Your task to perform on an android device: turn vacation reply on in the gmail app Image 0: 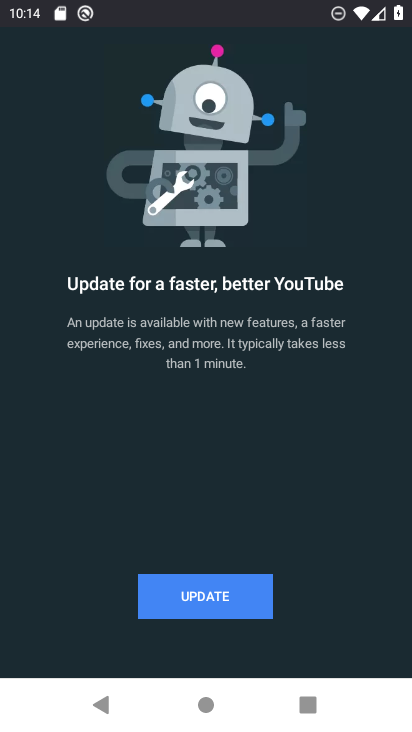
Step 0: press home button
Your task to perform on an android device: turn vacation reply on in the gmail app Image 1: 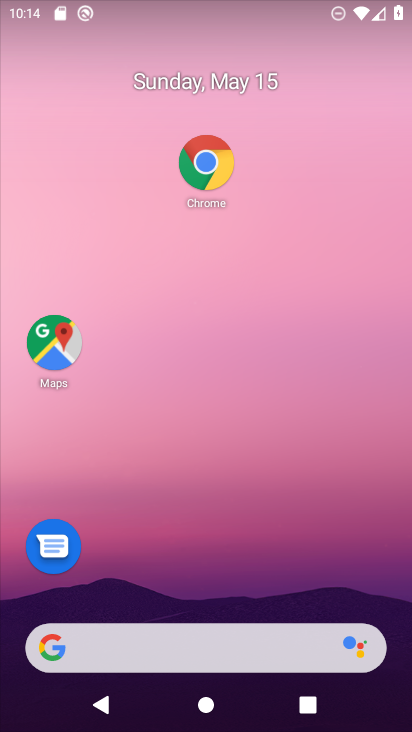
Step 1: drag from (200, 402) to (275, 127)
Your task to perform on an android device: turn vacation reply on in the gmail app Image 2: 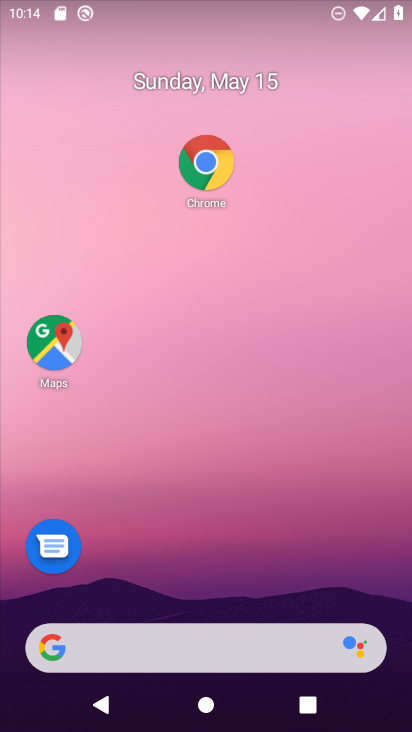
Step 2: drag from (208, 543) to (285, 192)
Your task to perform on an android device: turn vacation reply on in the gmail app Image 3: 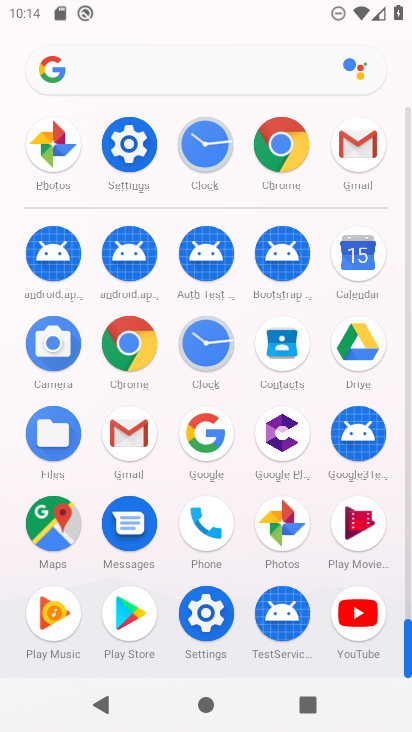
Step 3: click (135, 441)
Your task to perform on an android device: turn vacation reply on in the gmail app Image 4: 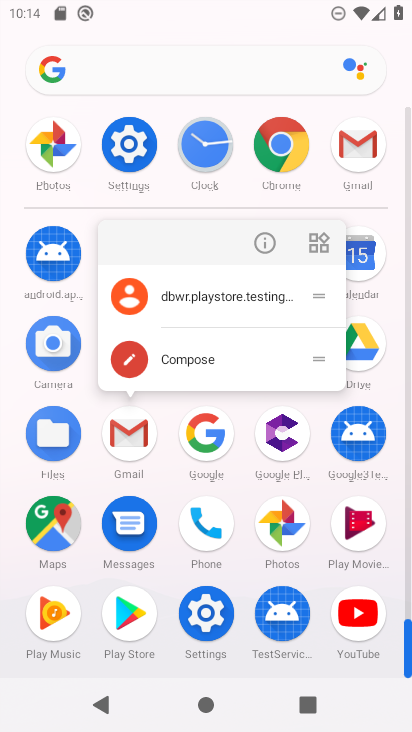
Step 4: click (125, 435)
Your task to perform on an android device: turn vacation reply on in the gmail app Image 5: 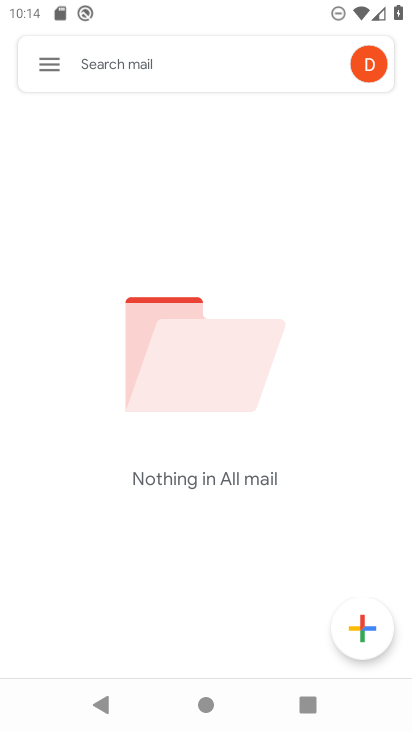
Step 5: click (52, 57)
Your task to perform on an android device: turn vacation reply on in the gmail app Image 6: 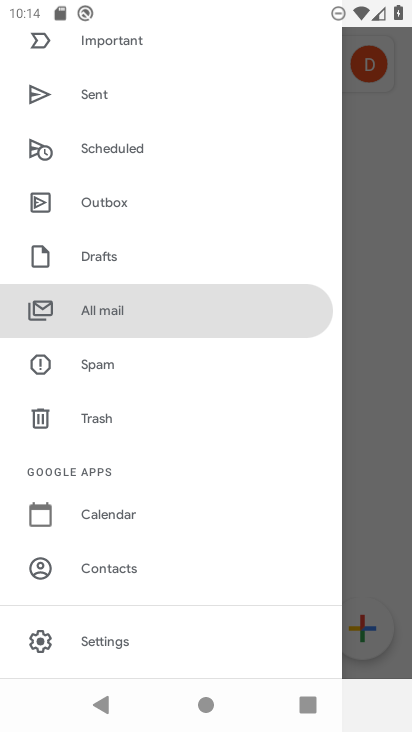
Step 6: click (142, 629)
Your task to perform on an android device: turn vacation reply on in the gmail app Image 7: 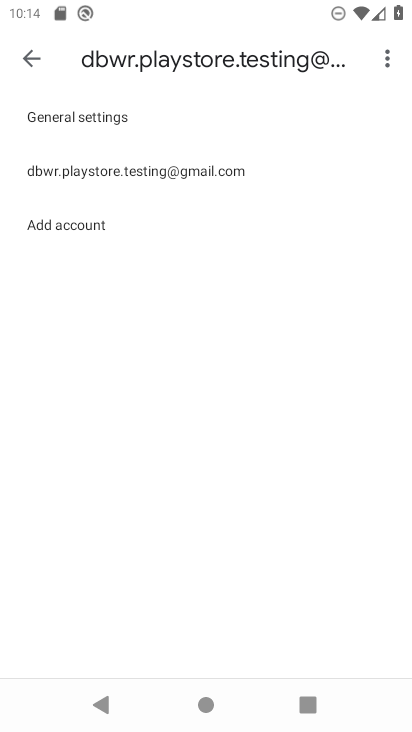
Step 7: click (91, 175)
Your task to perform on an android device: turn vacation reply on in the gmail app Image 8: 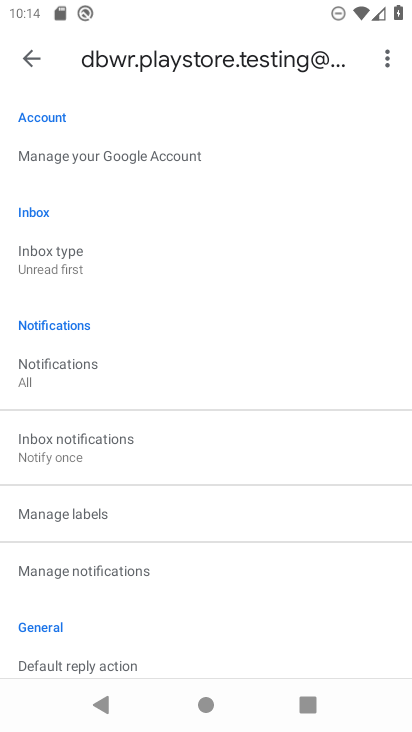
Step 8: drag from (124, 597) to (305, 82)
Your task to perform on an android device: turn vacation reply on in the gmail app Image 9: 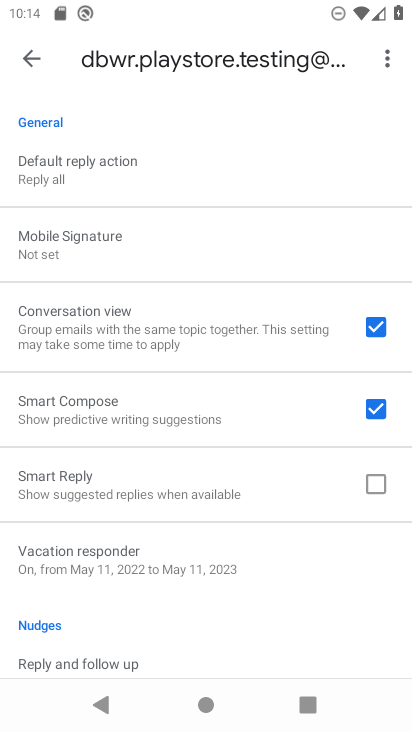
Step 9: drag from (90, 568) to (115, 527)
Your task to perform on an android device: turn vacation reply on in the gmail app Image 10: 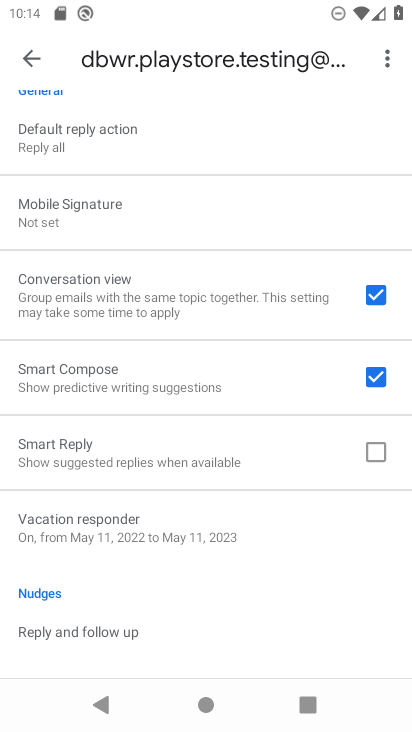
Step 10: click (112, 510)
Your task to perform on an android device: turn vacation reply on in the gmail app Image 11: 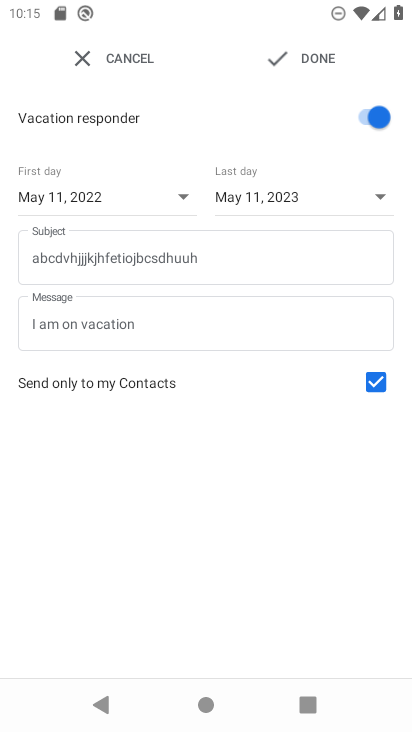
Step 11: task complete